Your task to perform on an android device: toggle pop-ups in chrome Image 0: 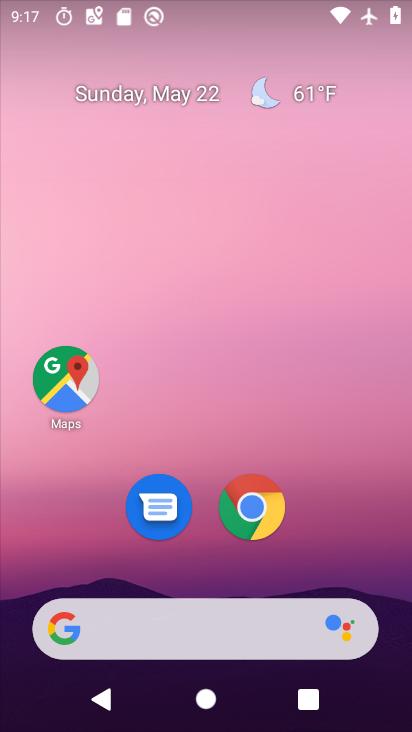
Step 0: click (270, 492)
Your task to perform on an android device: toggle pop-ups in chrome Image 1: 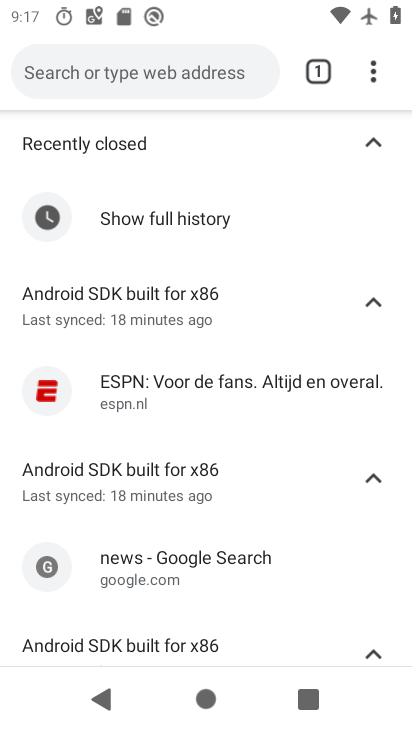
Step 1: click (386, 74)
Your task to perform on an android device: toggle pop-ups in chrome Image 2: 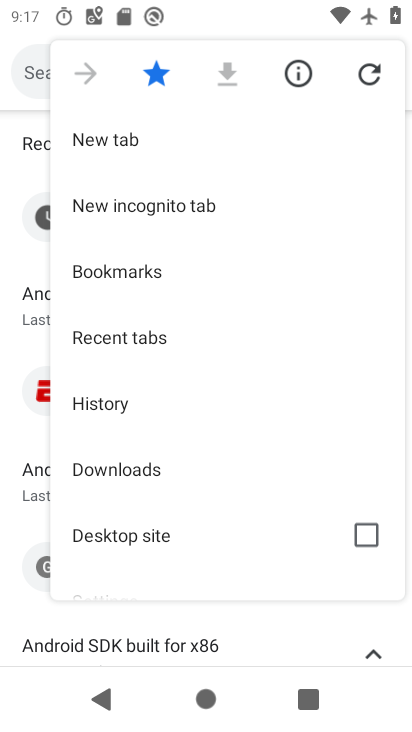
Step 2: drag from (85, 559) to (222, 167)
Your task to perform on an android device: toggle pop-ups in chrome Image 3: 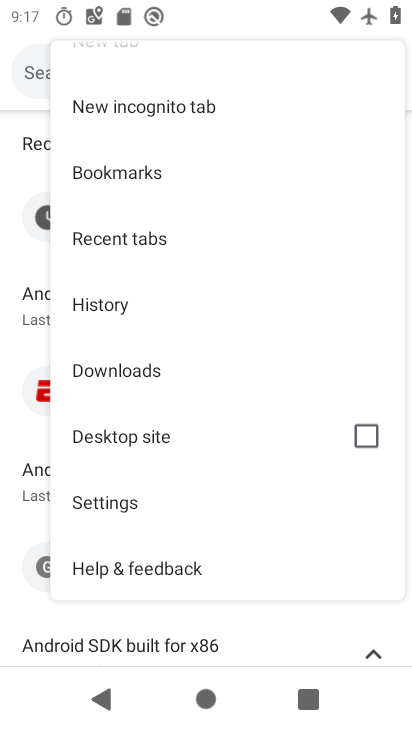
Step 3: click (100, 511)
Your task to perform on an android device: toggle pop-ups in chrome Image 4: 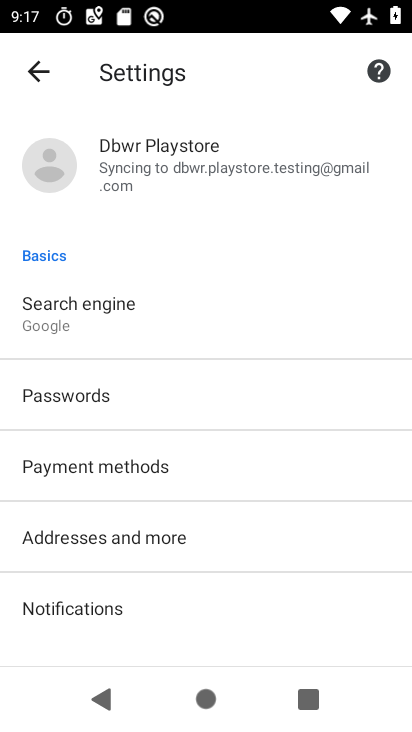
Step 4: drag from (60, 628) to (228, 49)
Your task to perform on an android device: toggle pop-ups in chrome Image 5: 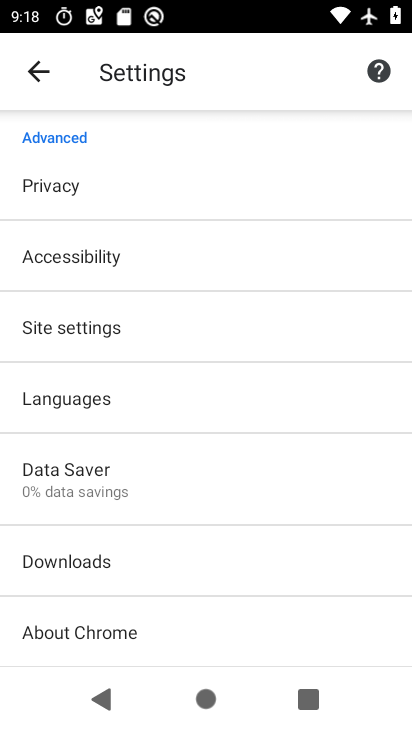
Step 5: click (183, 341)
Your task to perform on an android device: toggle pop-ups in chrome Image 6: 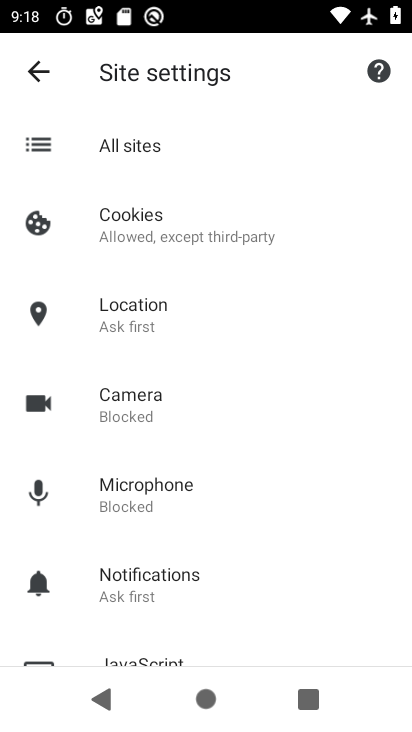
Step 6: drag from (143, 618) to (289, 195)
Your task to perform on an android device: toggle pop-ups in chrome Image 7: 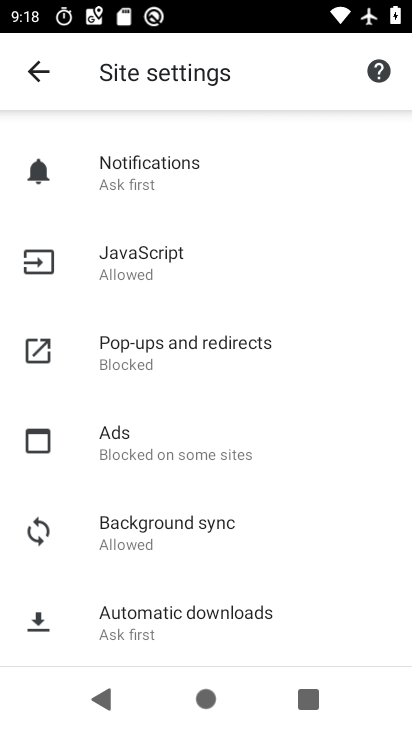
Step 7: click (167, 382)
Your task to perform on an android device: toggle pop-ups in chrome Image 8: 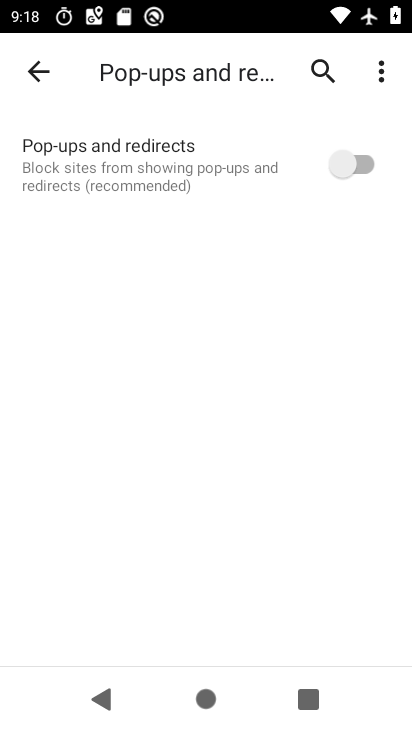
Step 8: click (378, 161)
Your task to perform on an android device: toggle pop-ups in chrome Image 9: 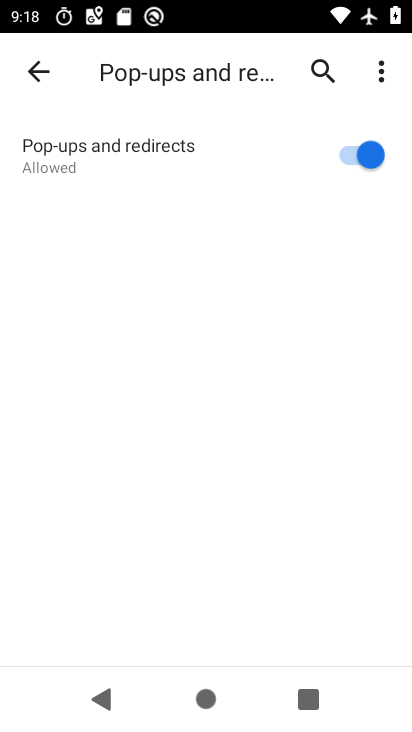
Step 9: click (378, 161)
Your task to perform on an android device: toggle pop-ups in chrome Image 10: 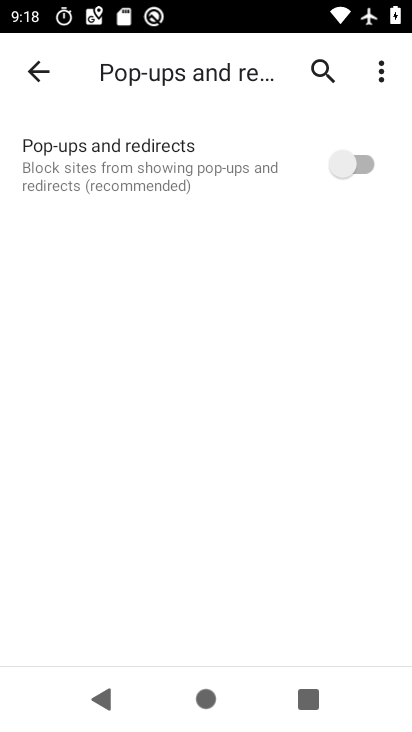
Step 10: task complete